Your task to perform on an android device: stop showing notifications on the lock screen Image 0: 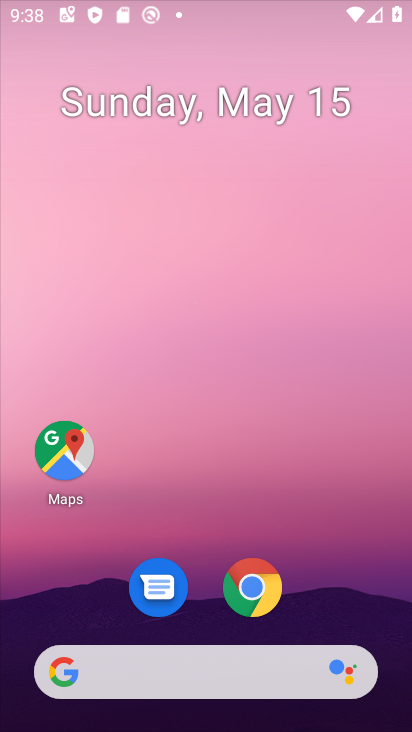
Step 0: drag from (388, 633) to (278, 51)
Your task to perform on an android device: stop showing notifications on the lock screen Image 1: 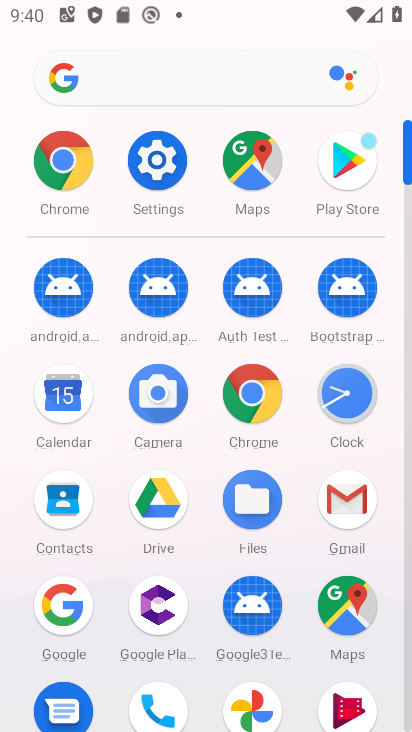
Step 1: click (159, 158)
Your task to perform on an android device: stop showing notifications on the lock screen Image 2: 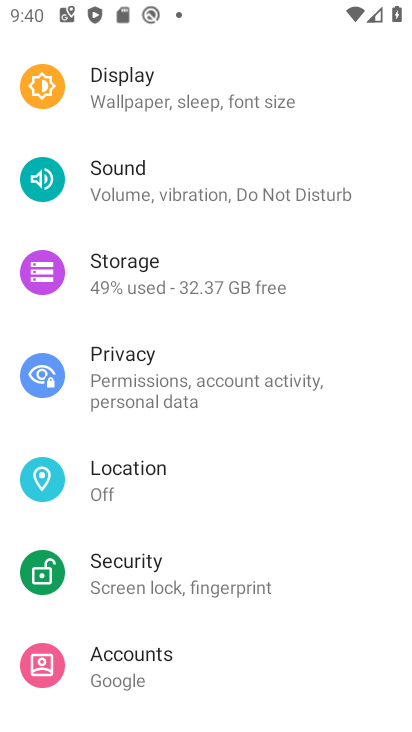
Step 2: drag from (223, 137) to (251, 607)
Your task to perform on an android device: stop showing notifications on the lock screen Image 3: 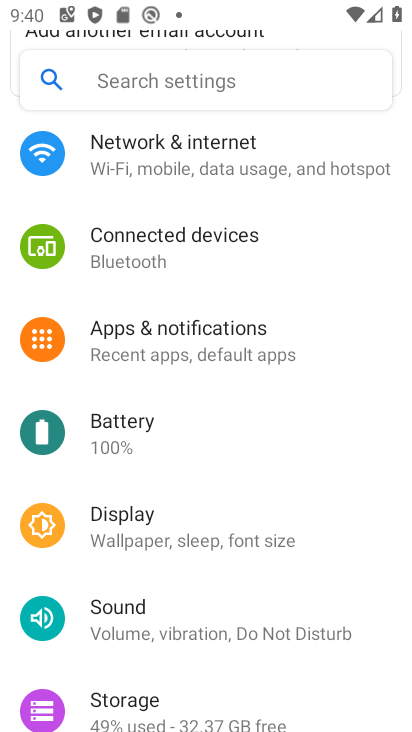
Step 3: click (241, 355)
Your task to perform on an android device: stop showing notifications on the lock screen Image 4: 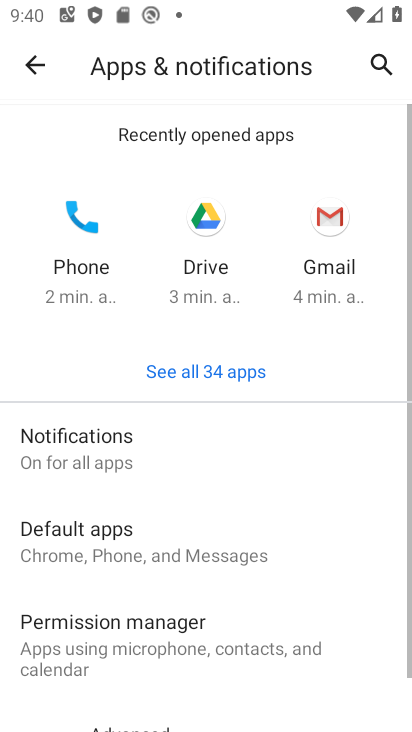
Step 4: click (157, 440)
Your task to perform on an android device: stop showing notifications on the lock screen Image 5: 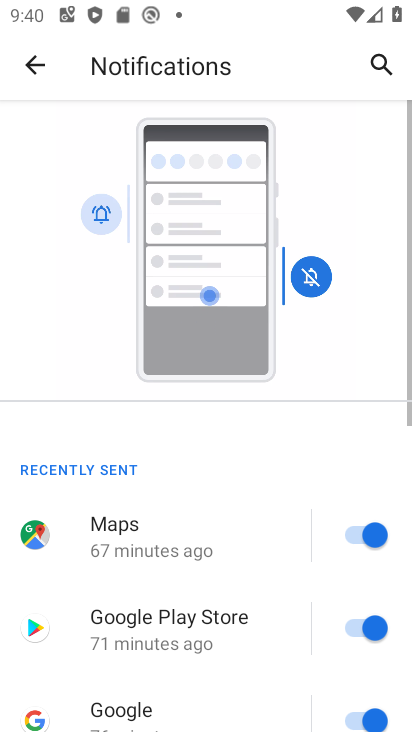
Step 5: drag from (168, 628) to (208, 97)
Your task to perform on an android device: stop showing notifications on the lock screen Image 6: 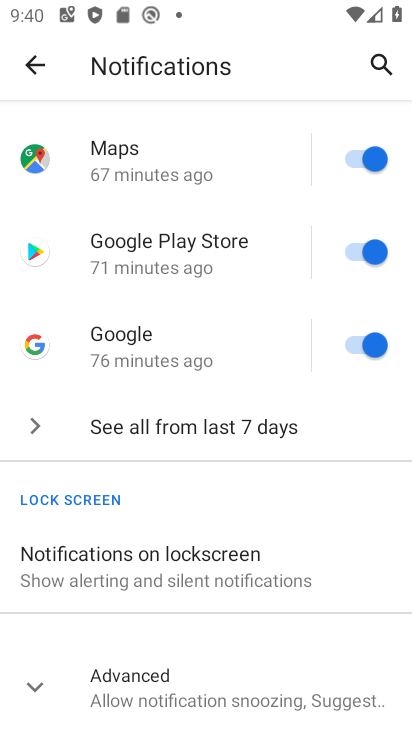
Step 6: click (180, 562)
Your task to perform on an android device: stop showing notifications on the lock screen Image 7: 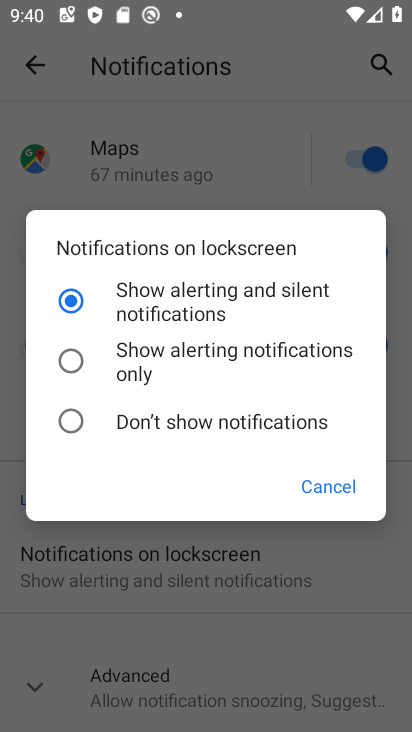
Step 7: click (138, 421)
Your task to perform on an android device: stop showing notifications on the lock screen Image 8: 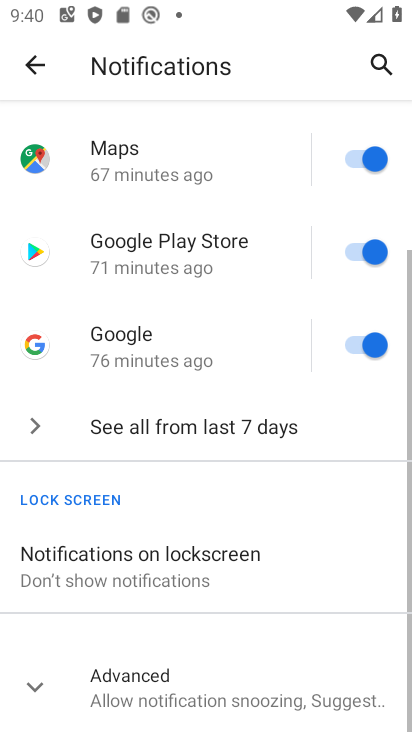
Step 8: task complete